Your task to perform on an android device: Open Amazon Image 0: 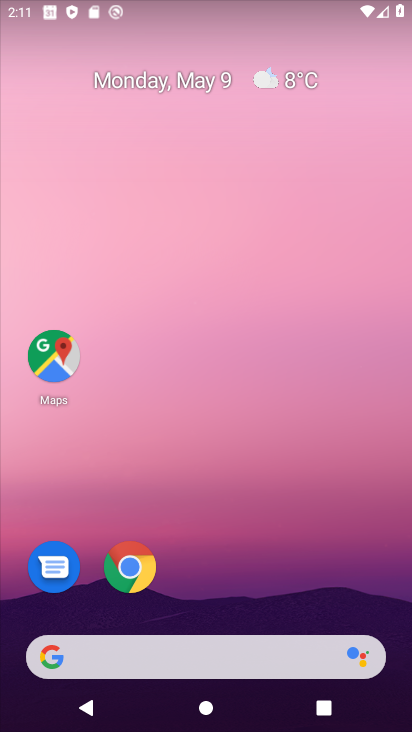
Step 0: drag from (254, 534) to (254, 238)
Your task to perform on an android device: Open Amazon Image 1: 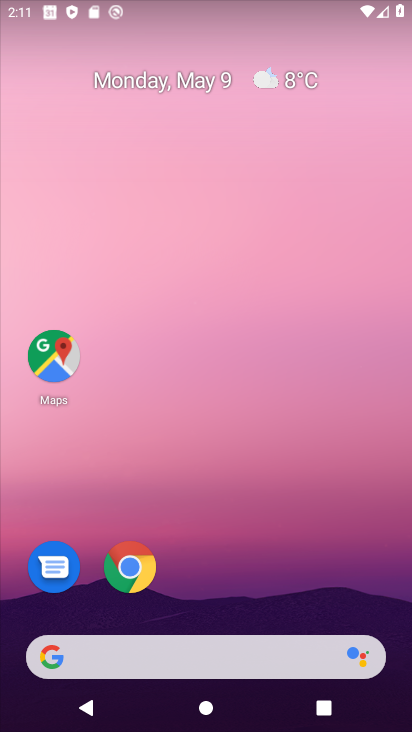
Step 1: drag from (277, 353) to (277, 316)
Your task to perform on an android device: Open Amazon Image 2: 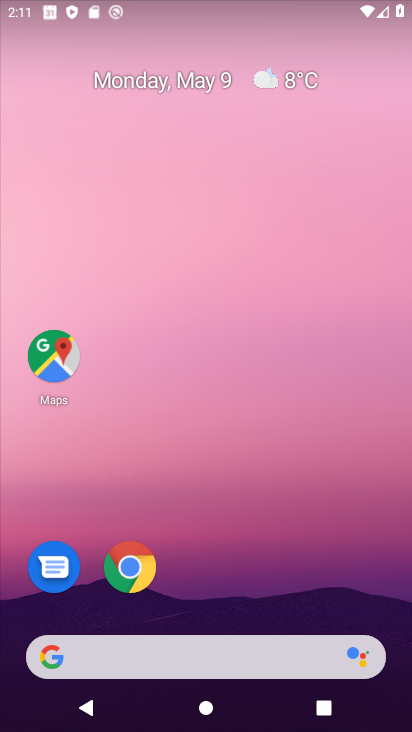
Step 2: drag from (264, 599) to (269, 263)
Your task to perform on an android device: Open Amazon Image 3: 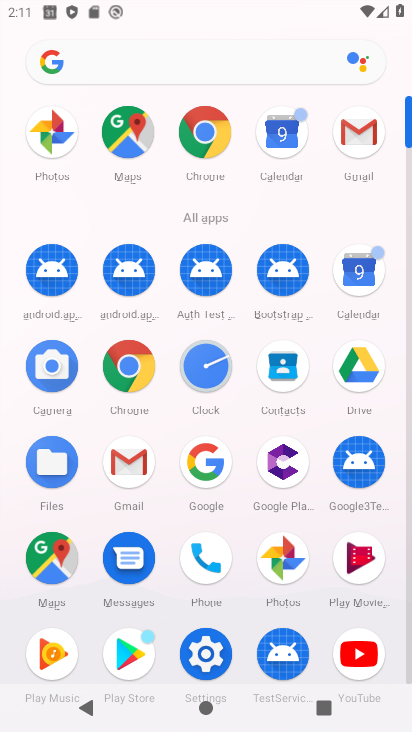
Step 3: click (132, 362)
Your task to perform on an android device: Open Amazon Image 4: 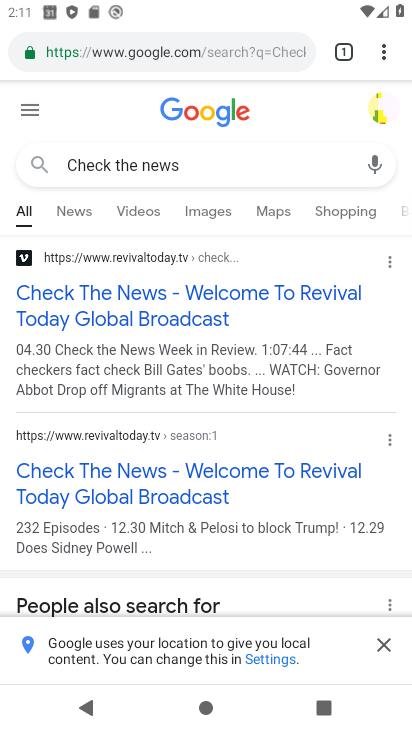
Step 4: click (378, 49)
Your task to perform on an android device: Open Amazon Image 5: 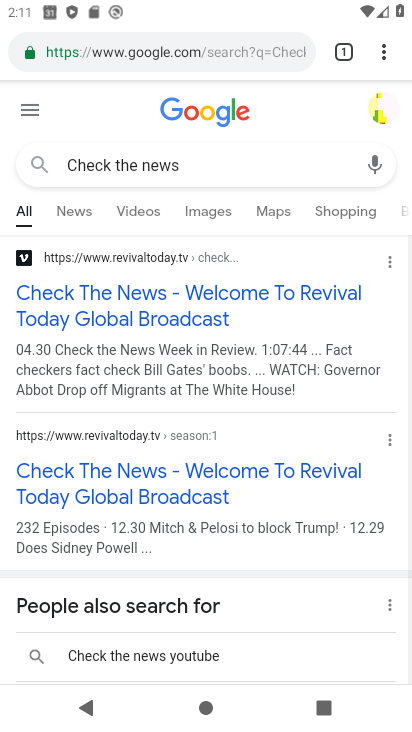
Step 5: click (360, 48)
Your task to perform on an android device: Open Amazon Image 6: 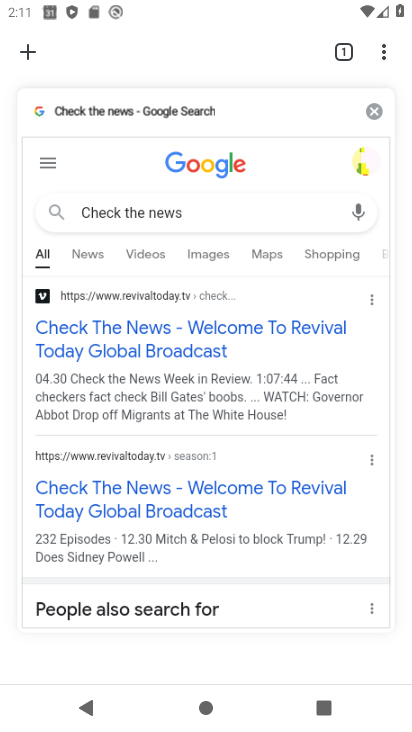
Step 6: click (371, 46)
Your task to perform on an android device: Open Amazon Image 7: 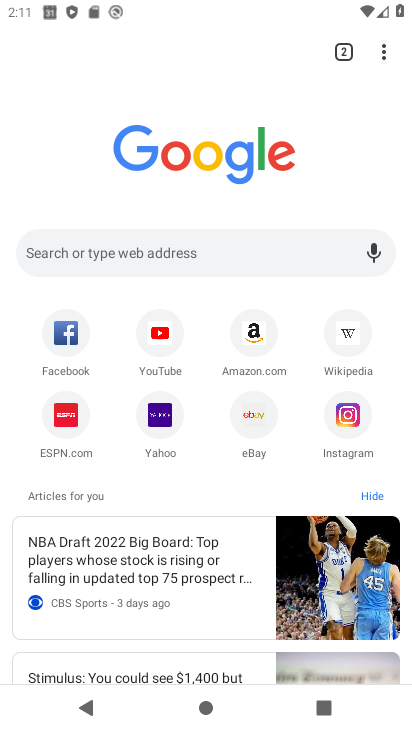
Step 7: click (255, 314)
Your task to perform on an android device: Open Amazon Image 8: 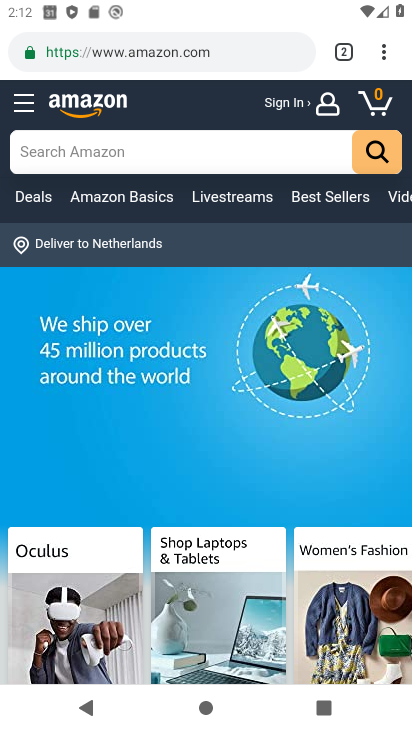
Step 8: task complete